Your task to perform on an android device: turn vacation reply on in the gmail app Image 0: 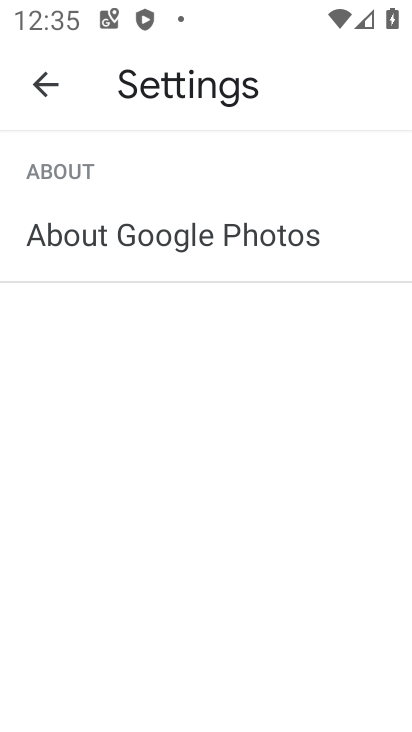
Step 0: press home button
Your task to perform on an android device: turn vacation reply on in the gmail app Image 1: 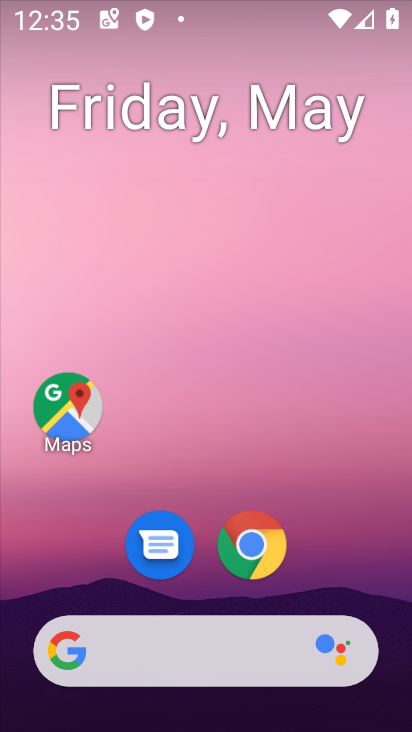
Step 1: drag from (313, 422) to (363, 176)
Your task to perform on an android device: turn vacation reply on in the gmail app Image 2: 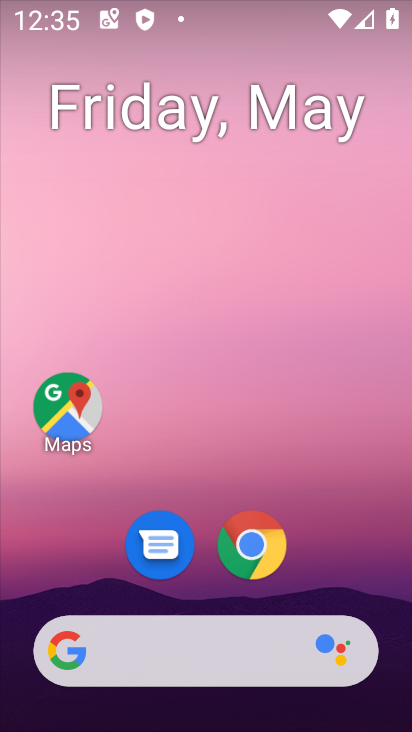
Step 2: drag from (331, 467) to (345, 202)
Your task to perform on an android device: turn vacation reply on in the gmail app Image 3: 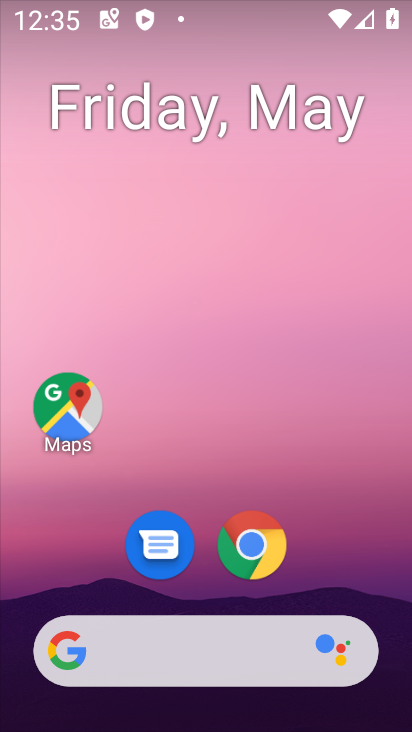
Step 3: drag from (333, 537) to (387, 193)
Your task to perform on an android device: turn vacation reply on in the gmail app Image 4: 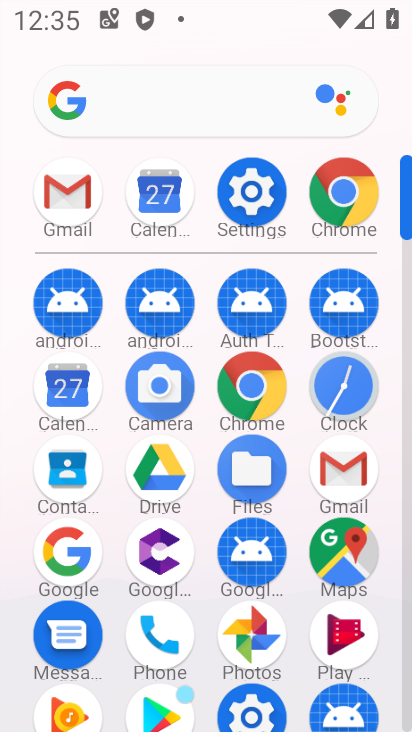
Step 4: click (343, 455)
Your task to perform on an android device: turn vacation reply on in the gmail app Image 5: 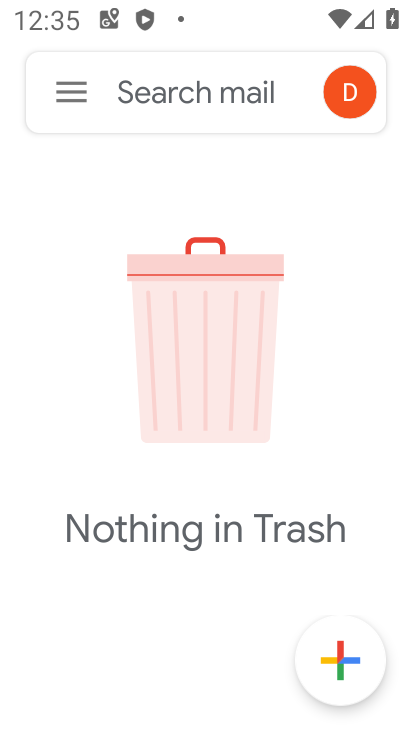
Step 5: click (66, 89)
Your task to perform on an android device: turn vacation reply on in the gmail app Image 6: 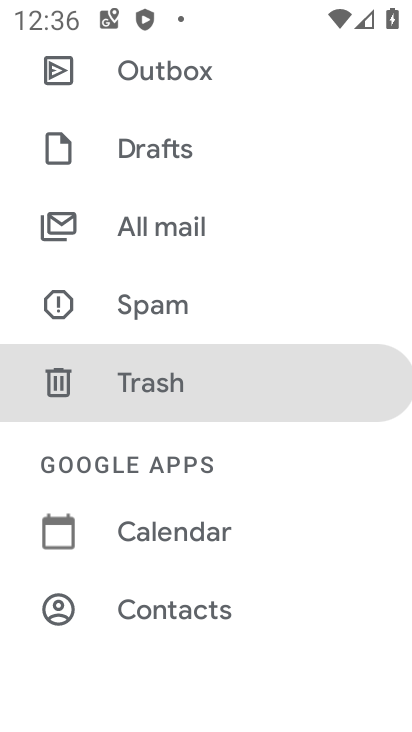
Step 6: drag from (171, 533) to (234, 183)
Your task to perform on an android device: turn vacation reply on in the gmail app Image 7: 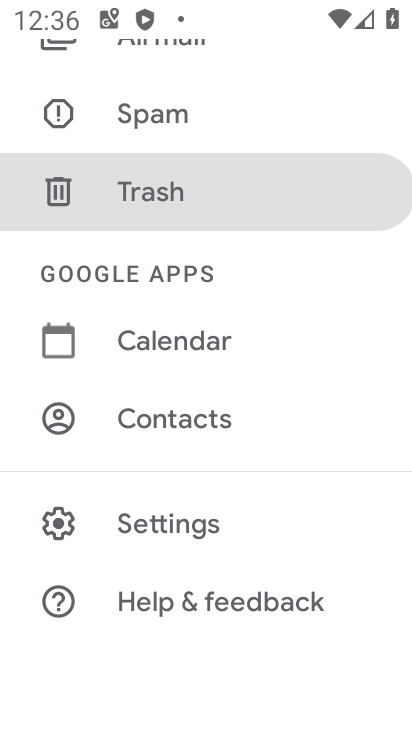
Step 7: click (157, 527)
Your task to perform on an android device: turn vacation reply on in the gmail app Image 8: 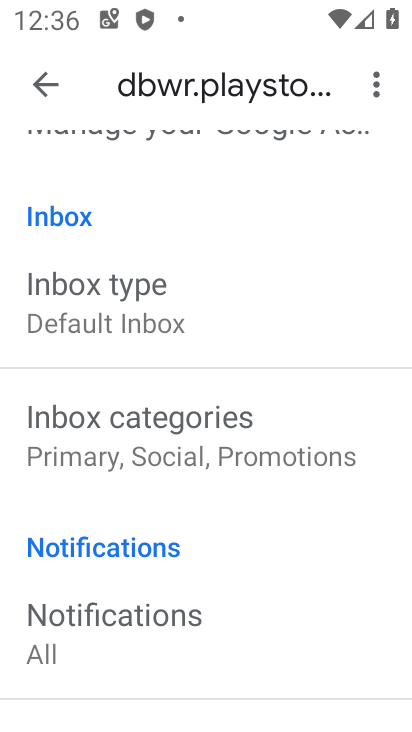
Step 8: drag from (224, 651) to (265, 192)
Your task to perform on an android device: turn vacation reply on in the gmail app Image 9: 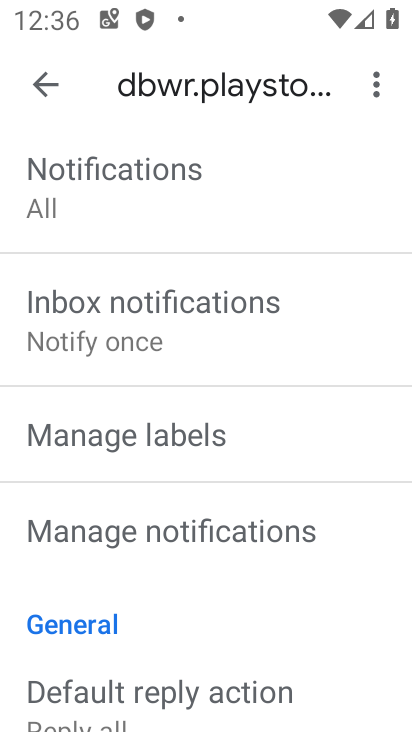
Step 9: drag from (207, 611) to (256, 215)
Your task to perform on an android device: turn vacation reply on in the gmail app Image 10: 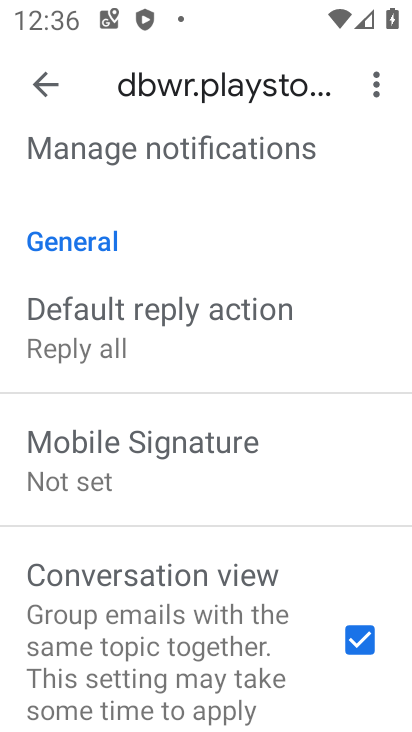
Step 10: drag from (195, 627) to (257, 224)
Your task to perform on an android device: turn vacation reply on in the gmail app Image 11: 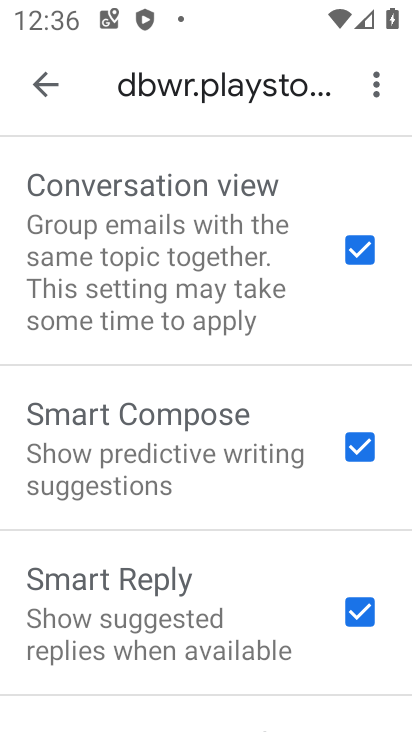
Step 11: drag from (190, 636) to (263, 182)
Your task to perform on an android device: turn vacation reply on in the gmail app Image 12: 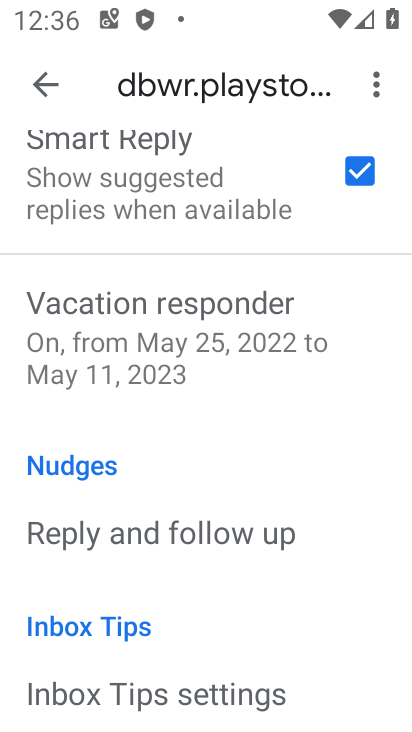
Step 12: click (185, 328)
Your task to perform on an android device: turn vacation reply on in the gmail app Image 13: 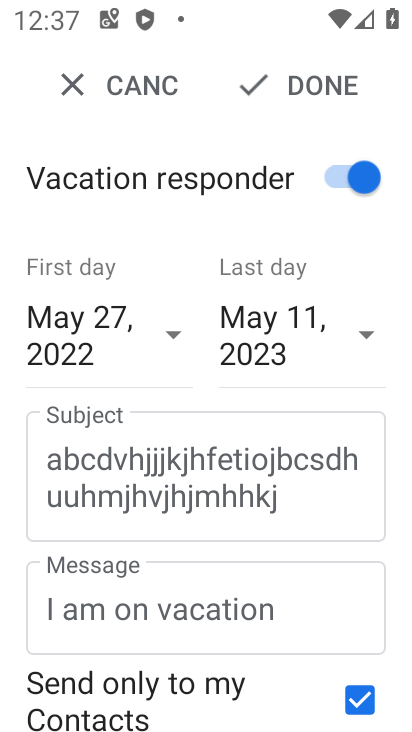
Step 13: task complete